Your task to perform on an android device: Open Yahoo.com Image 0: 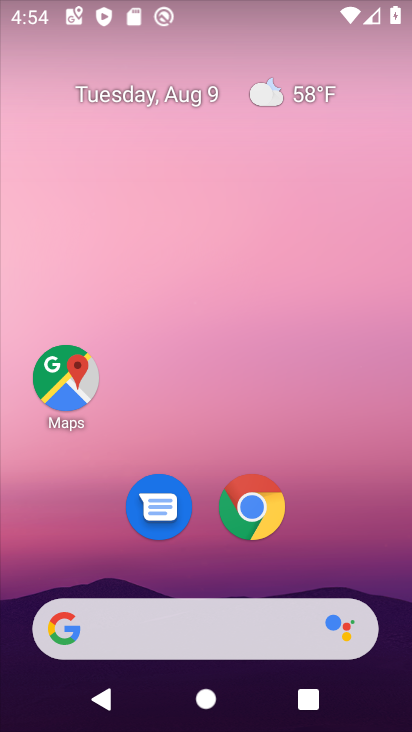
Step 0: click (239, 519)
Your task to perform on an android device: Open Yahoo.com Image 1: 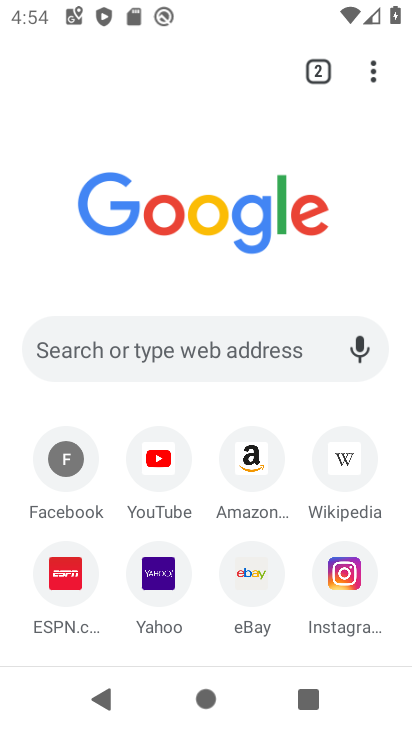
Step 1: click (128, 581)
Your task to perform on an android device: Open Yahoo.com Image 2: 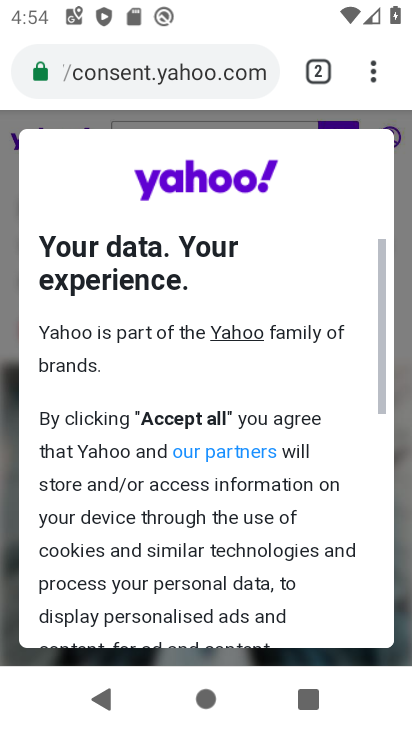
Step 2: task complete